Your task to perform on an android device: Add "razer deathadder" to the cart on walmart, then select checkout. Image 0: 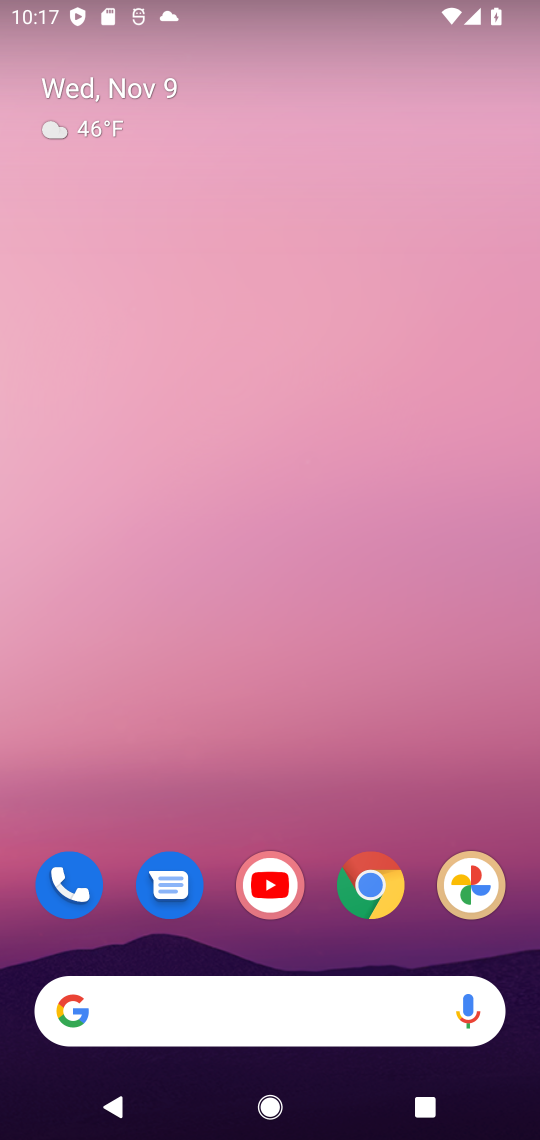
Step 0: click (380, 864)
Your task to perform on an android device: Add "razer deathadder" to the cart on walmart, then select checkout. Image 1: 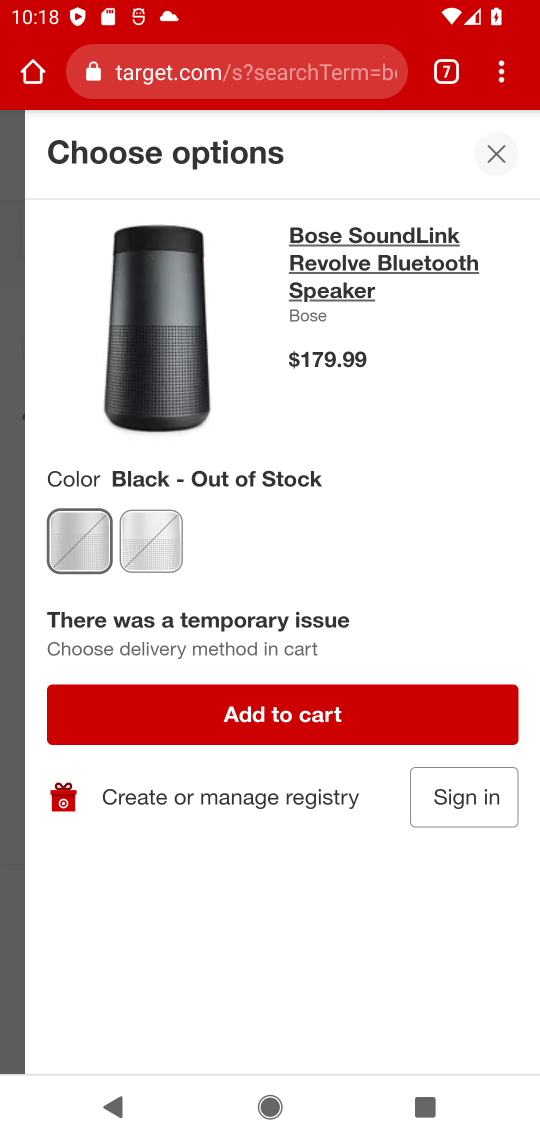
Step 1: press home button
Your task to perform on an android device: Add "razer deathadder" to the cart on walmart, then select checkout. Image 2: 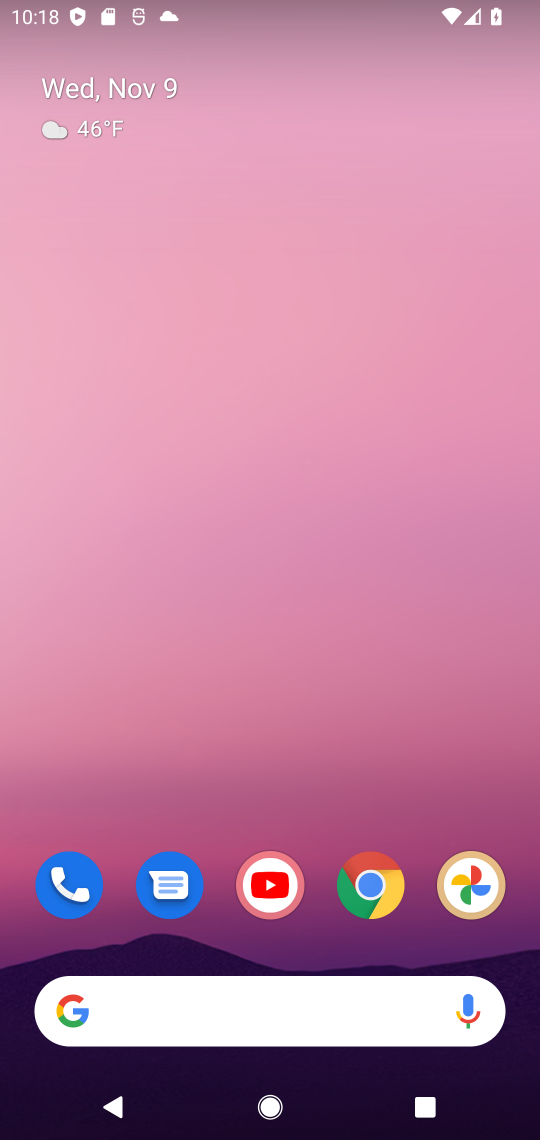
Step 2: click (374, 876)
Your task to perform on an android device: Add "razer deathadder" to the cart on walmart, then select checkout. Image 3: 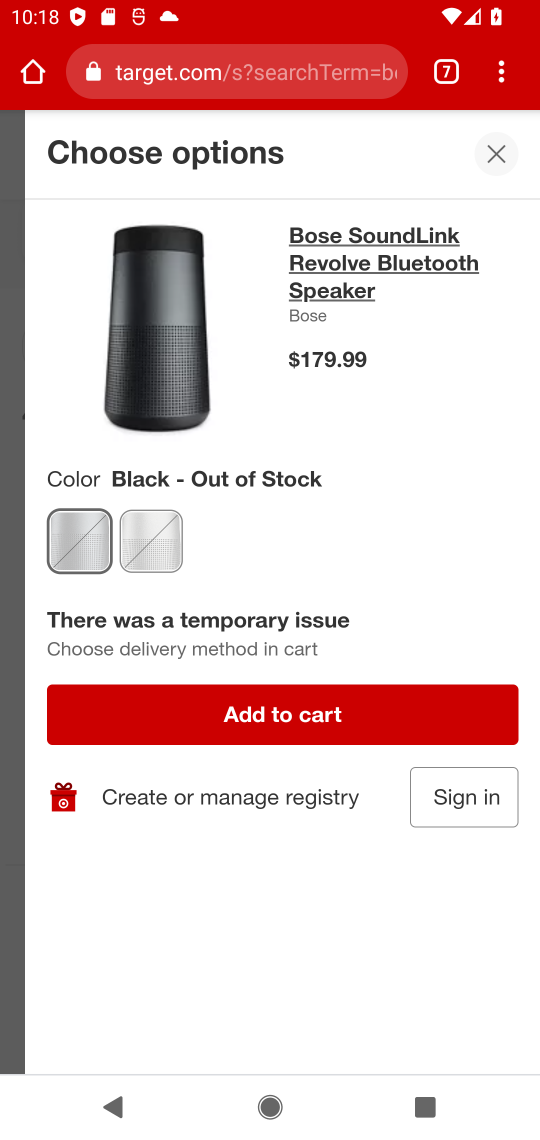
Step 3: click (442, 78)
Your task to perform on an android device: Add "razer deathadder" to the cart on walmart, then select checkout. Image 4: 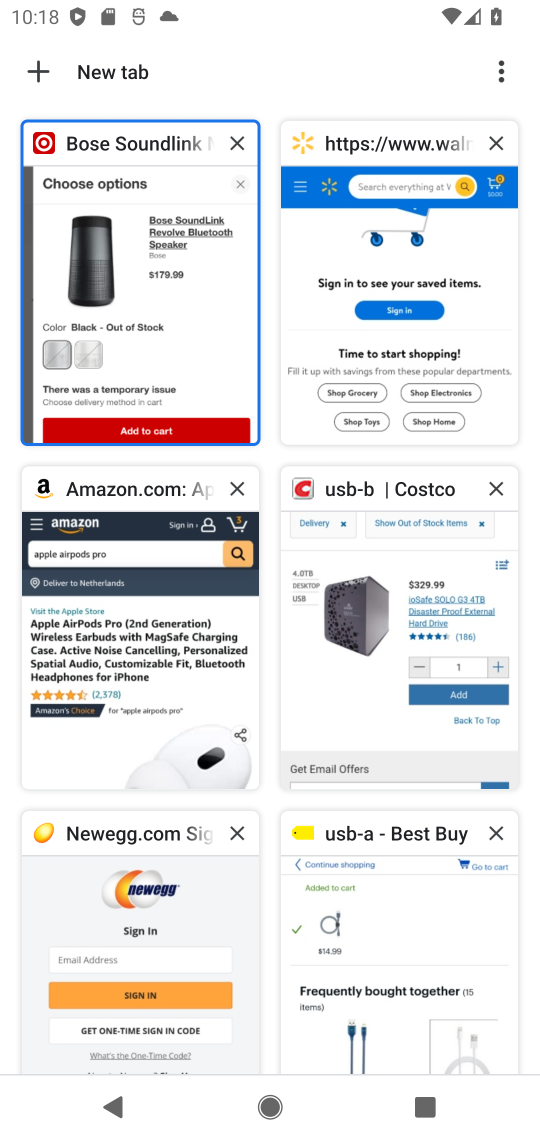
Step 4: click (357, 257)
Your task to perform on an android device: Add "razer deathadder" to the cart on walmart, then select checkout. Image 5: 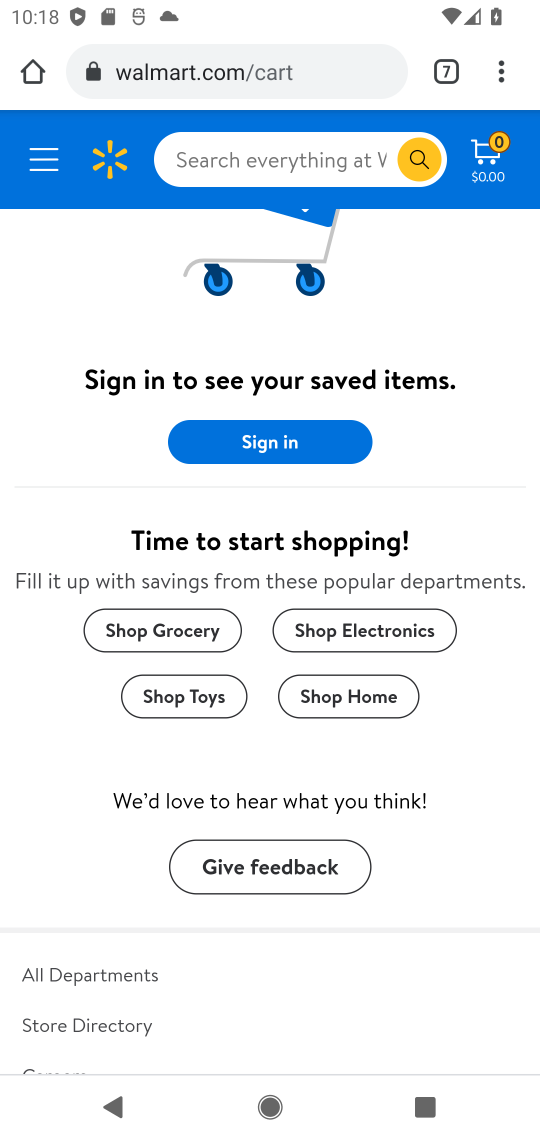
Step 5: click (233, 169)
Your task to perform on an android device: Add "razer deathadder" to the cart on walmart, then select checkout. Image 6: 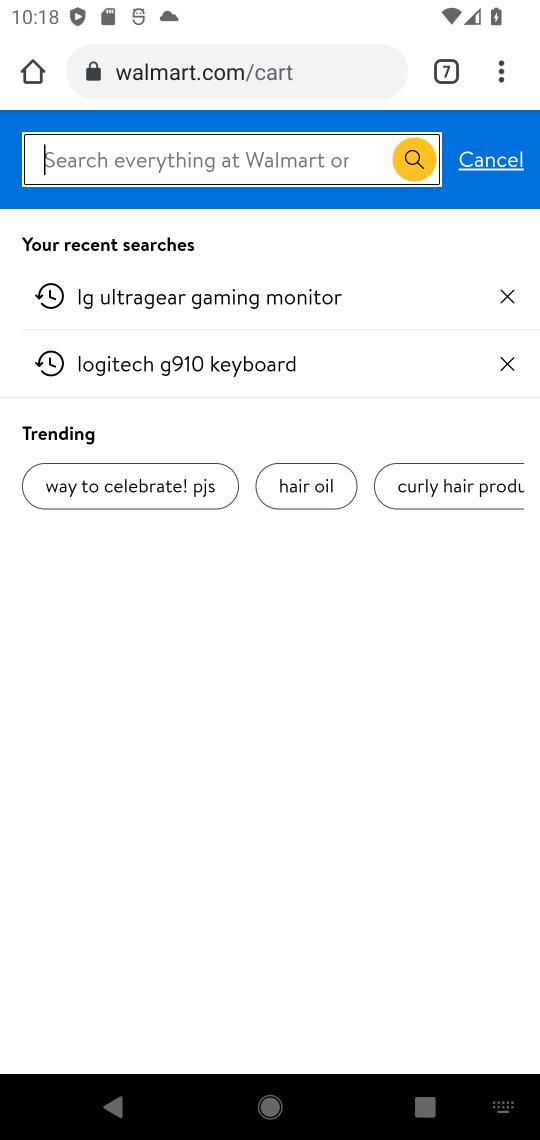
Step 6: type "razer deathadder"
Your task to perform on an android device: Add "razer deathadder" to the cart on walmart, then select checkout. Image 7: 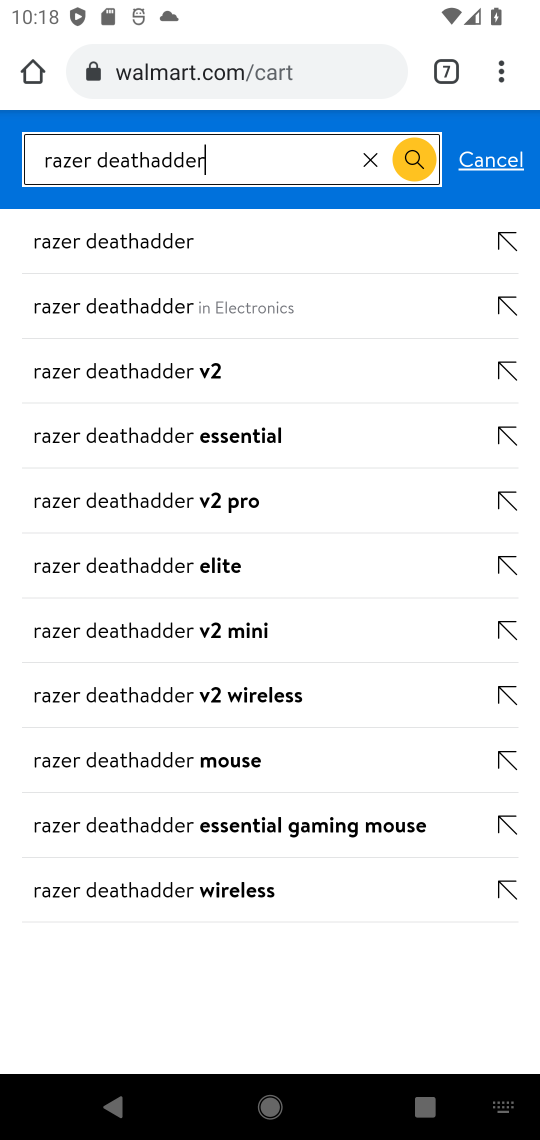
Step 7: click (169, 307)
Your task to perform on an android device: Add "razer deathadder" to the cart on walmart, then select checkout. Image 8: 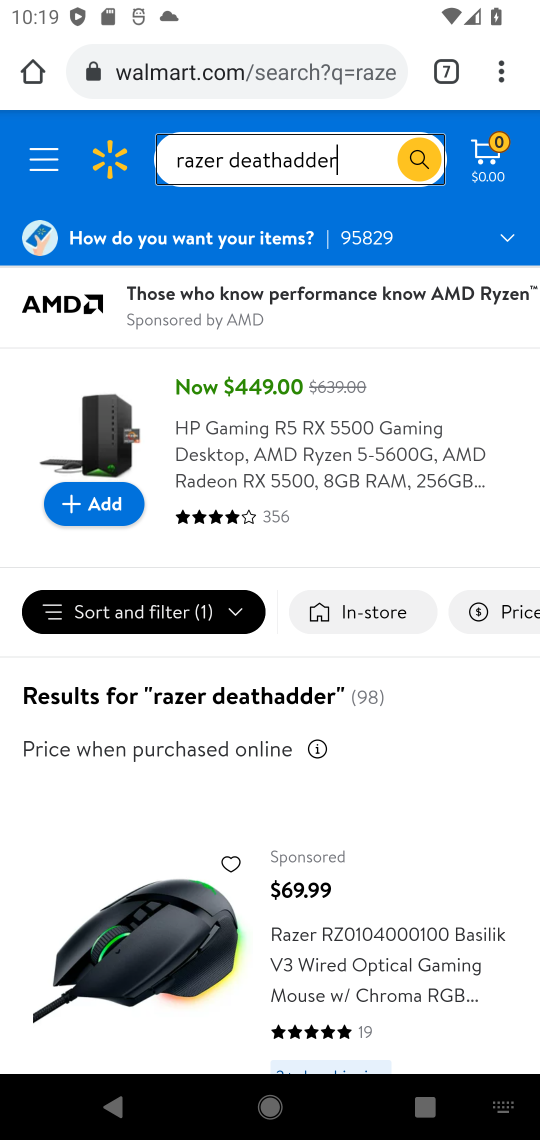
Step 8: drag from (454, 881) to (488, 475)
Your task to perform on an android device: Add "razer deathadder" to the cart on walmart, then select checkout. Image 9: 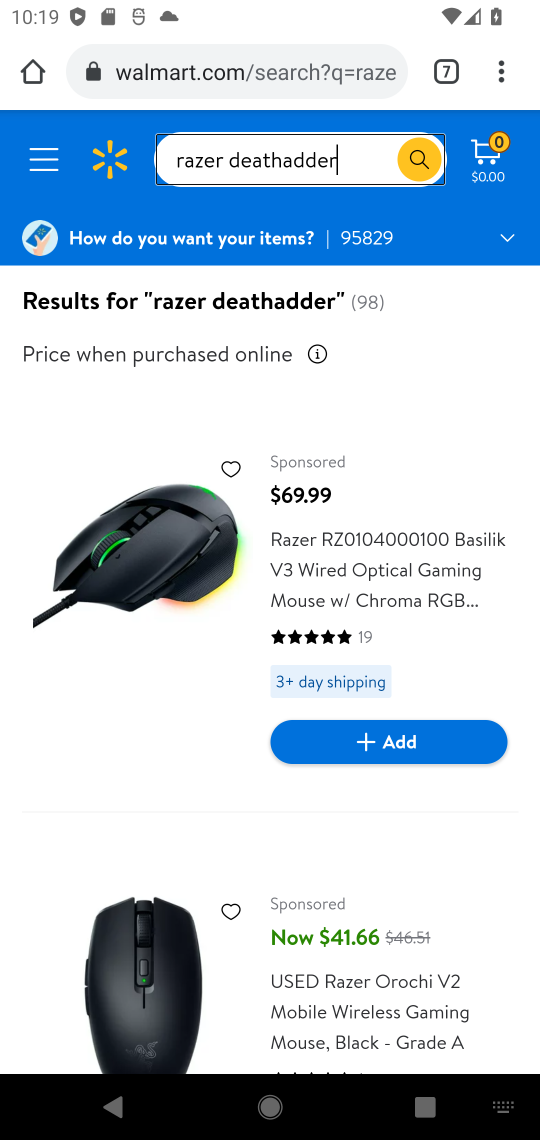
Step 9: click (386, 741)
Your task to perform on an android device: Add "razer deathadder" to the cart on walmart, then select checkout. Image 10: 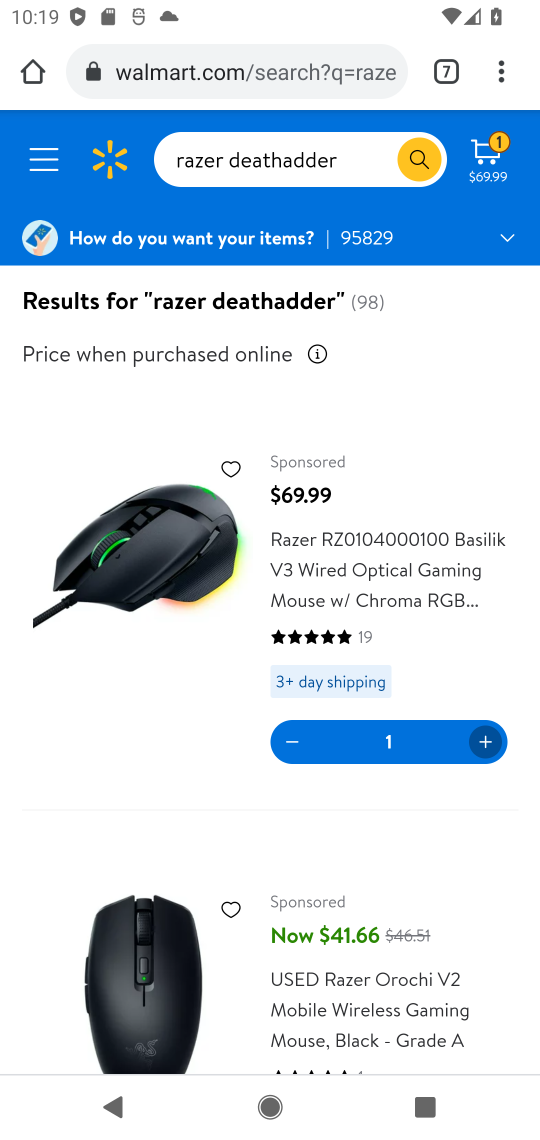
Step 10: click (486, 164)
Your task to perform on an android device: Add "razer deathadder" to the cart on walmart, then select checkout. Image 11: 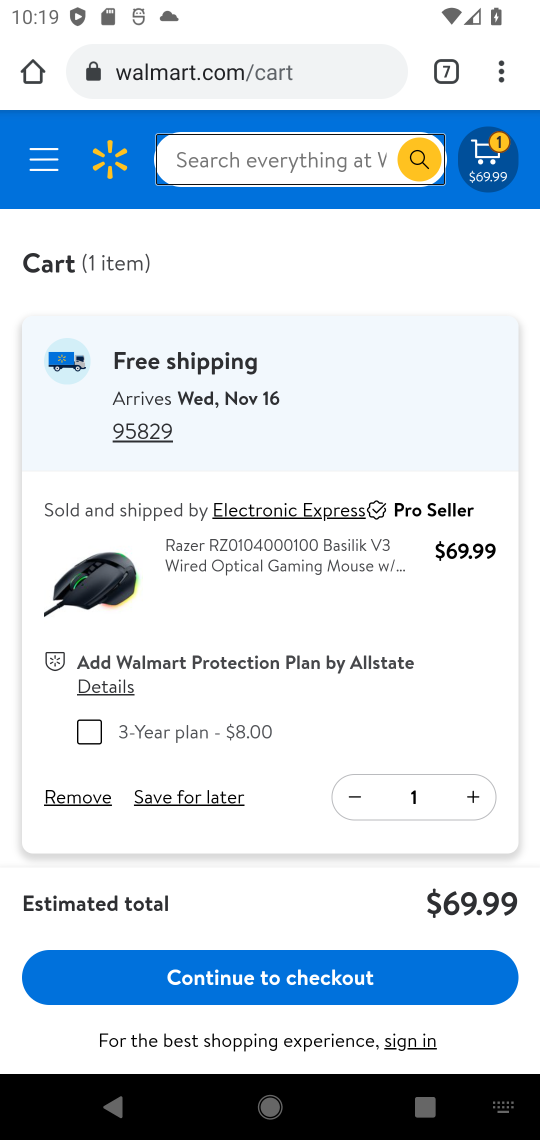
Step 11: click (312, 985)
Your task to perform on an android device: Add "razer deathadder" to the cart on walmart, then select checkout. Image 12: 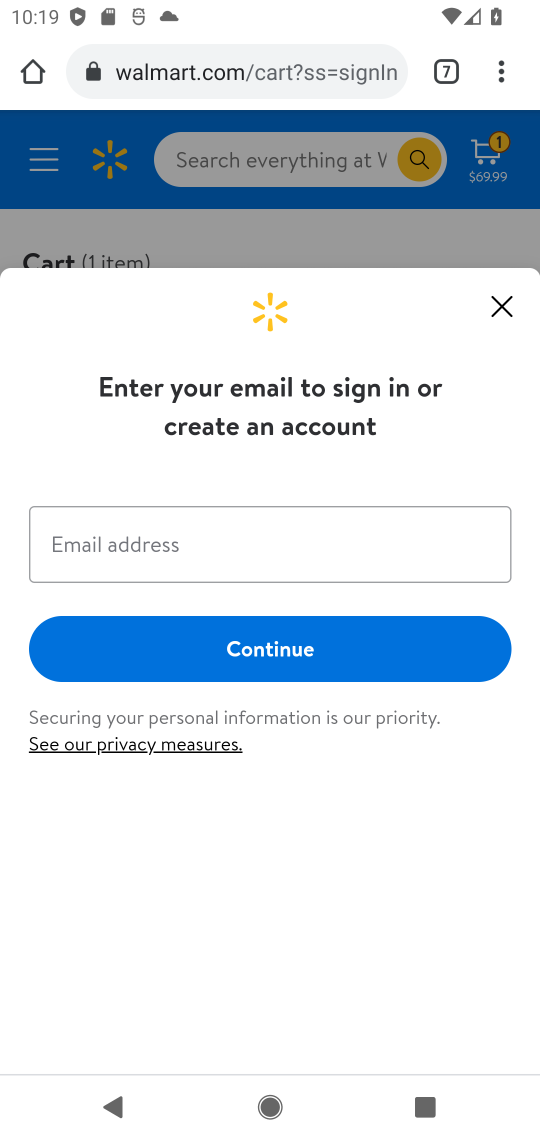
Step 12: task complete